Your task to perform on an android device: Go to ESPN.com Image 0: 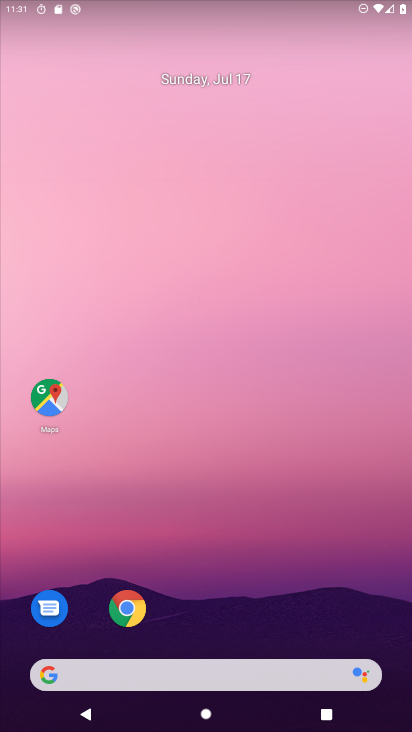
Step 0: click (127, 608)
Your task to perform on an android device: Go to ESPN.com Image 1: 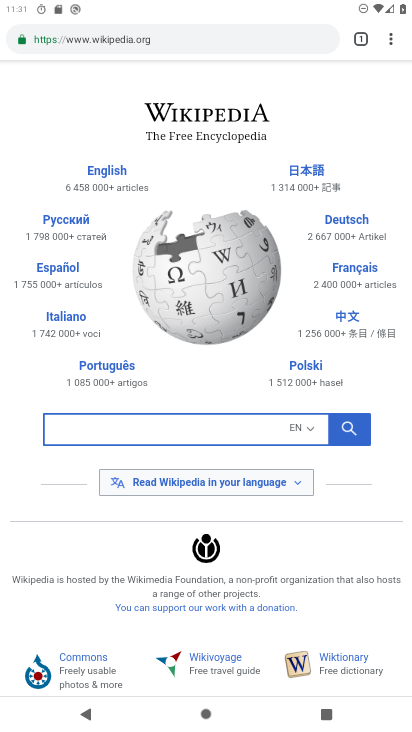
Step 1: click (169, 42)
Your task to perform on an android device: Go to ESPN.com Image 2: 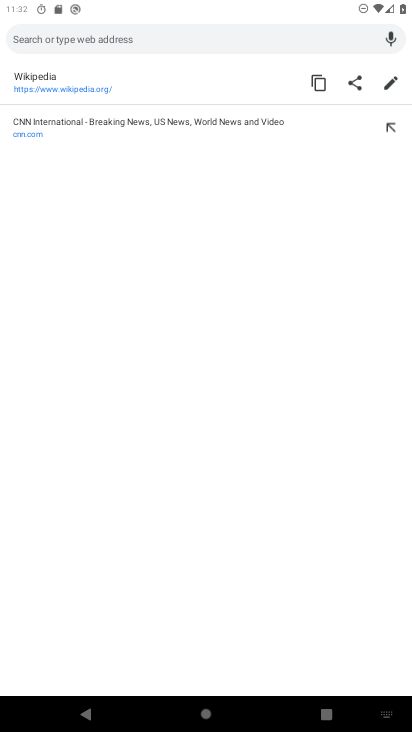
Step 2: type "ESPN.com"
Your task to perform on an android device: Go to ESPN.com Image 3: 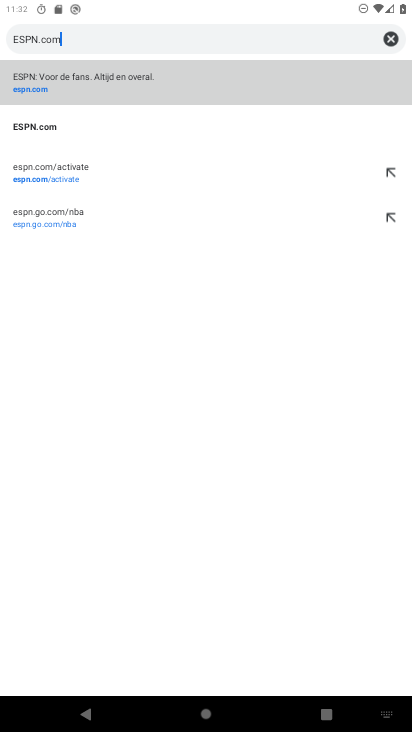
Step 3: click (296, 82)
Your task to perform on an android device: Go to ESPN.com Image 4: 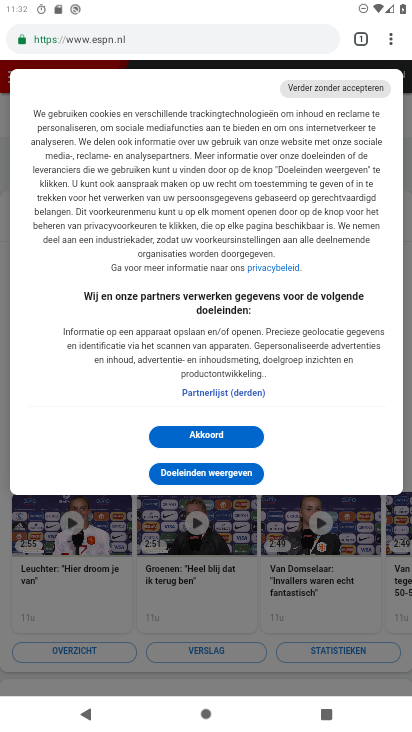
Step 4: task complete